Your task to perform on an android device: Turn off the flashlight Image 0: 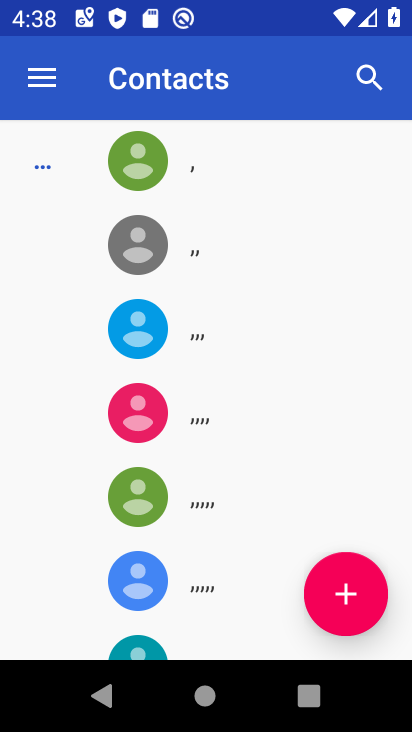
Step 0: press home button
Your task to perform on an android device: Turn off the flashlight Image 1: 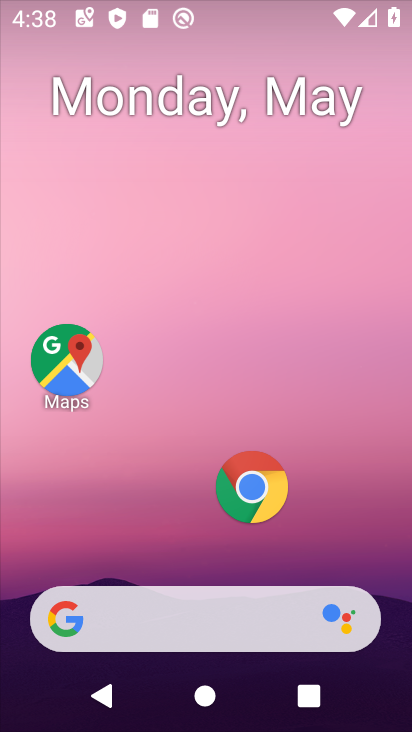
Step 1: drag from (195, 19) to (113, 731)
Your task to perform on an android device: Turn off the flashlight Image 2: 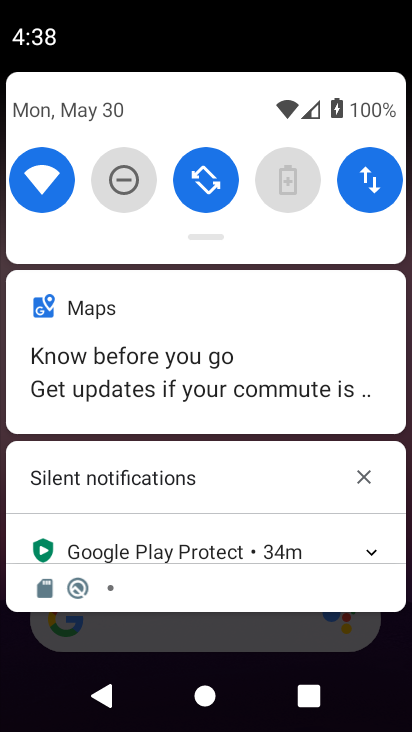
Step 2: drag from (196, 238) to (119, 625)
Your task to perform on an android device: Turn off the flashlight Image 3: 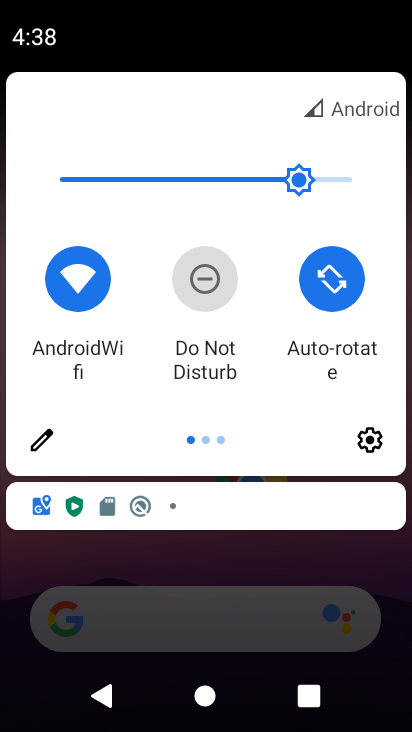
Step 3: click (43, 436)
Your task to perform on an android device: Turn off the flashlight Image 4: 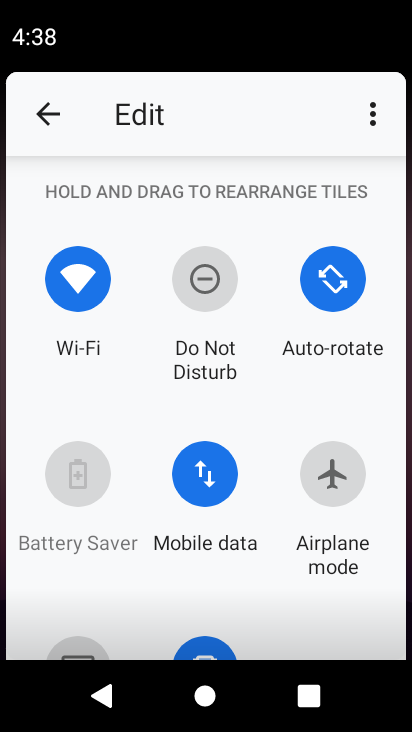
Step 4: task complete